Your task to perform on an android device: Open sound settings Image 0: 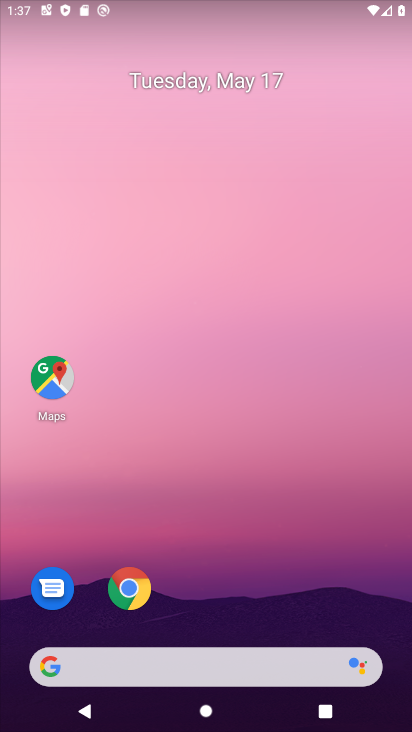
Step 0: drag from (210, 523) to (164, 298)
Your task to perform on an android device: Open sound settings Image 1: 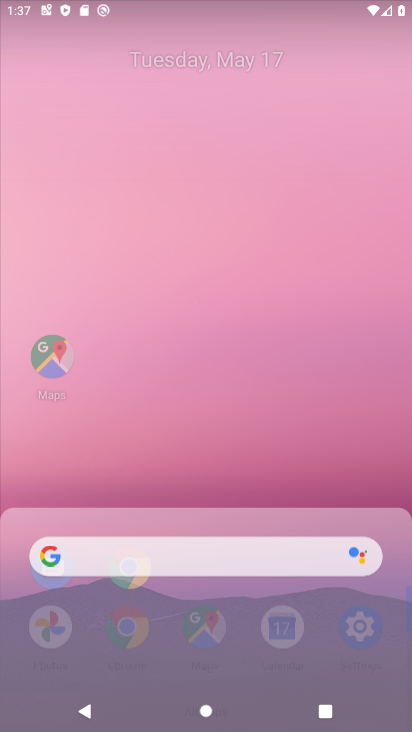
Step 1: click (136, 247)
Your task to perform on an android device: Open sound settings Image 2: 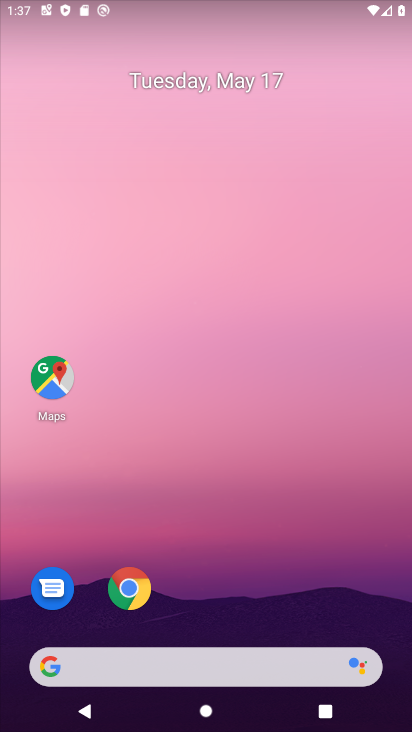
Step 2: drag from (183, 522) to (41, 17)
Your task to perform on an android device: Open sound settings Image 3: 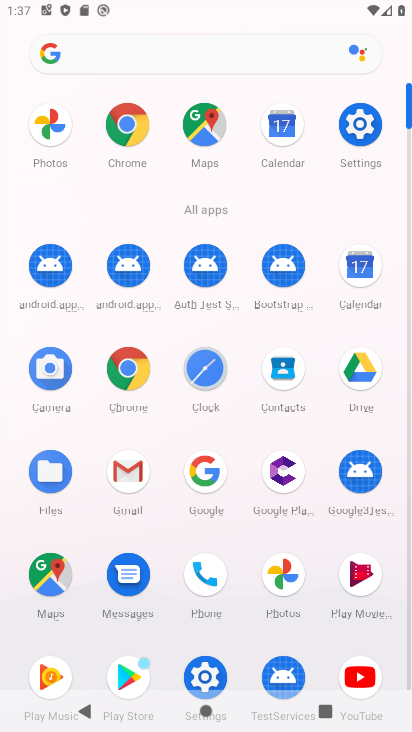
Step 3: click (369, 122)
Your task to perform on an android device: Open sound settings Image 4: 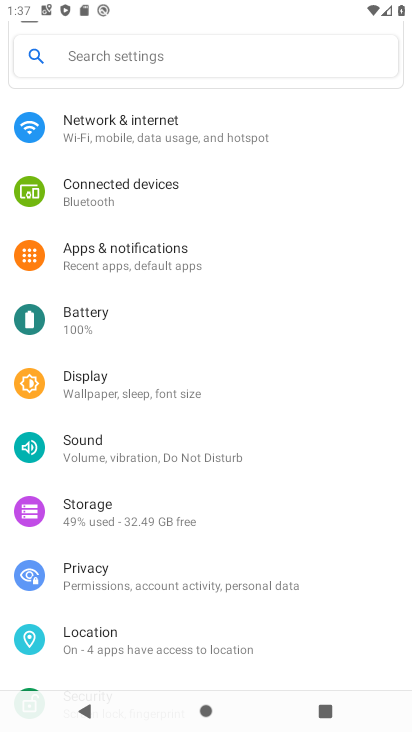
Step 4: click (130, 461)
Your task to perform on an android device: Open sound settings Image 5: 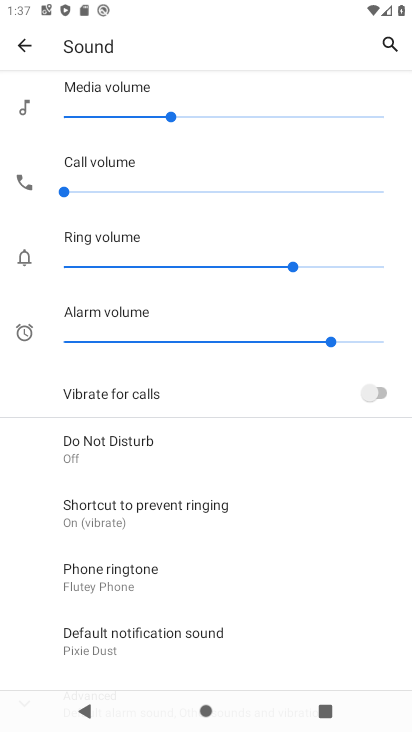
Step 5: drag from (158, 592) to (176, 304)
Your task to perform on an android device: Open sound settings Image 6: 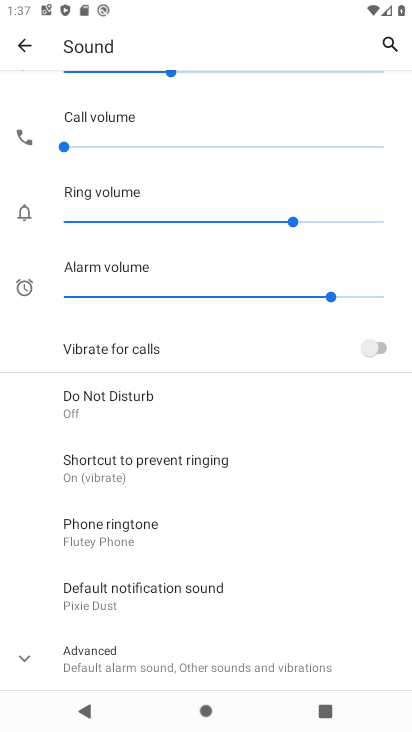
Step 6: click (113, 661)
Your task to perform on an android device: Open sound settings Image 7: 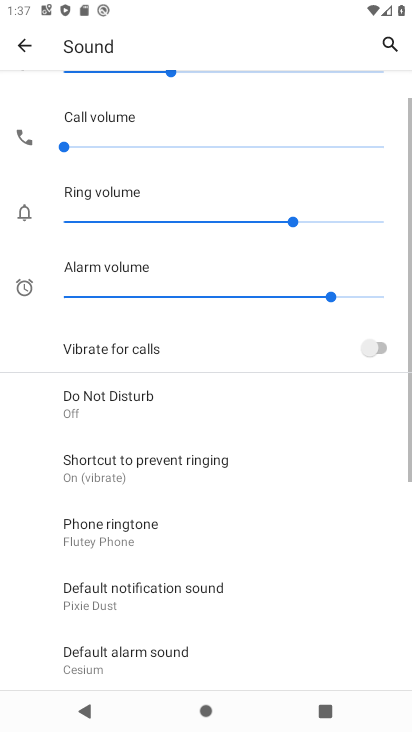
Step 7: task complete